Your task to perform on an android device: check storage Image 0: 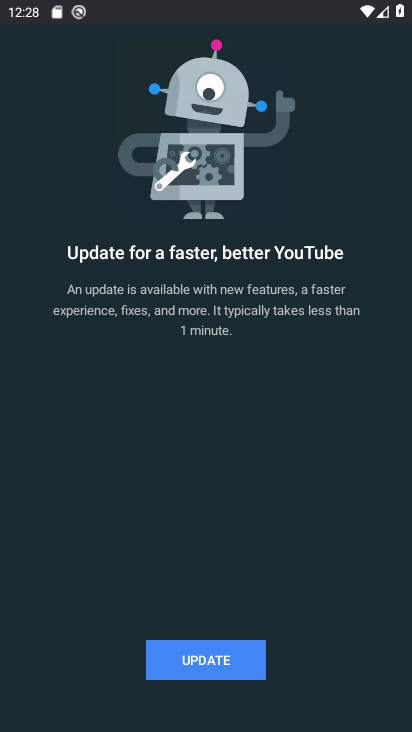
Step 0: press back button
Your task to perform on an android device: check storage Image 1: 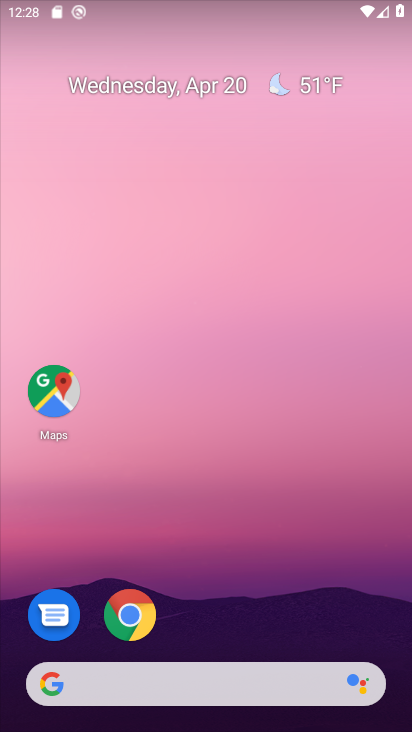
Step 1: drag from (125, 677) to (194, 135)
Your task to perform on an android device: check storage Image 2: 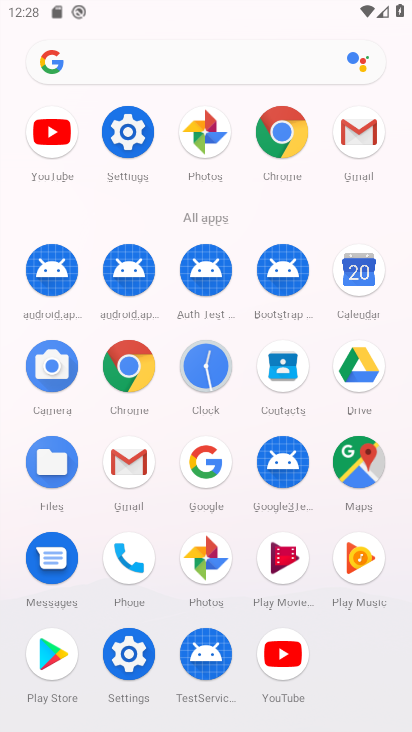
Step 2: click (138, 669)
Your task to perform on an android device: check storage Image 3: 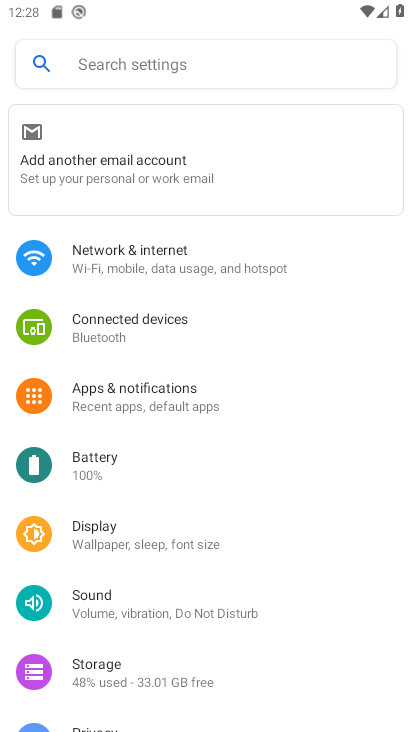
Step 3: click (120, 662)
Your task to perform on an android device: check storage Image 4: 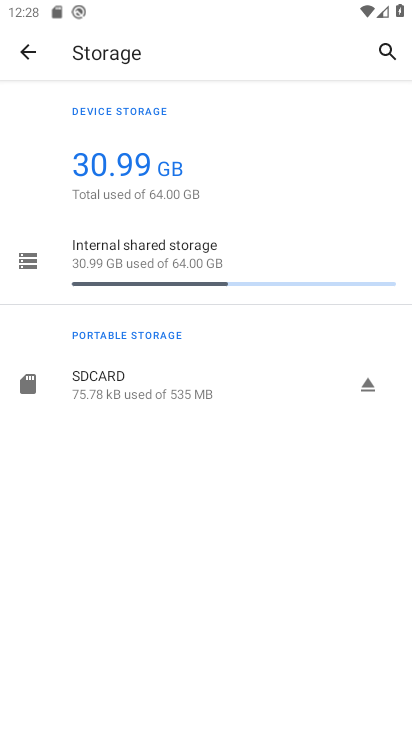
Step 4: click (144, 283)
Your task to perform on an android device: check storage Image 5: 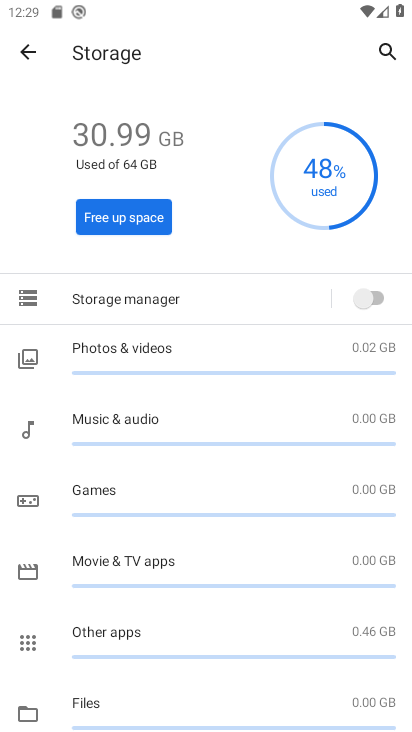
Step 5: task complete